Your task to perform on an android device: Open Chrome and go to the settings page Image 0: 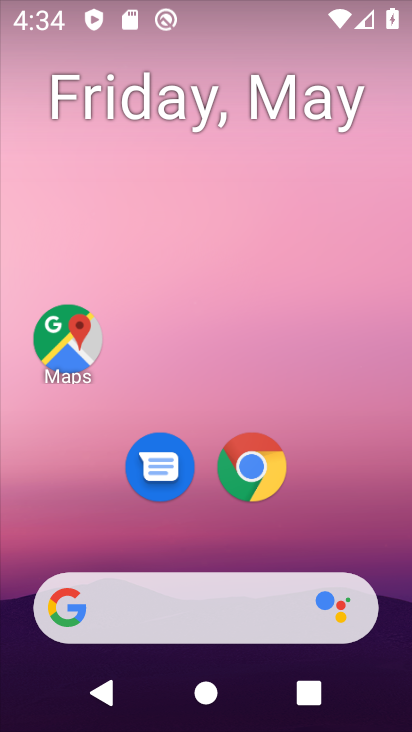
Step 0: click (242, 481)
Your task to perform on an android device: Open Chrome and go to the settings page Image 1: 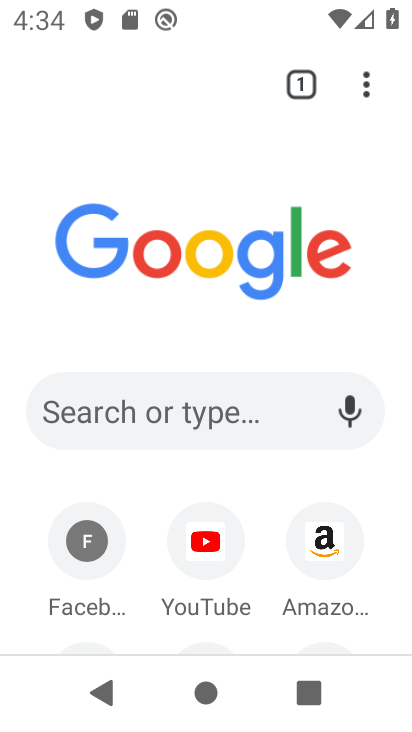
Step 1: click (362, 62)
Your task to perform on an android device: Open Chrome and go to the settings page Image 2: 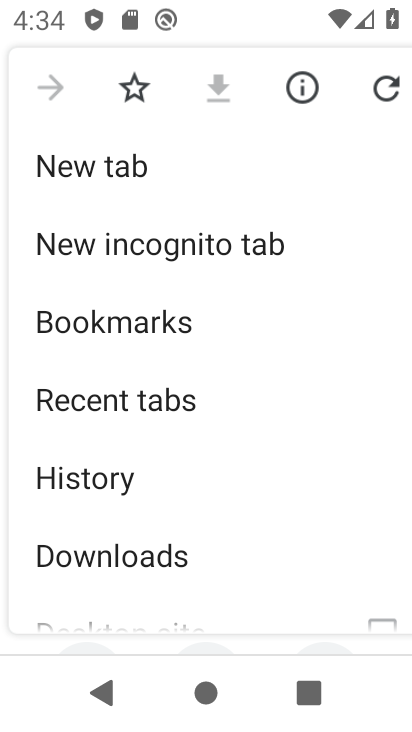
Step 2: drag from (239, 520) to (212, 173)
Your task to perform on an android device: Open Chrome and go to the settings page Image 3: 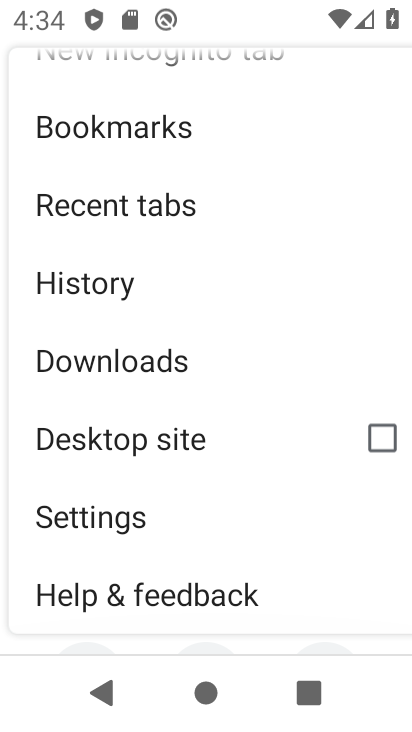
Step 3: click (173, 516)
Your task to perform on an android device: Open Chrome and go to the settings page Image 4: 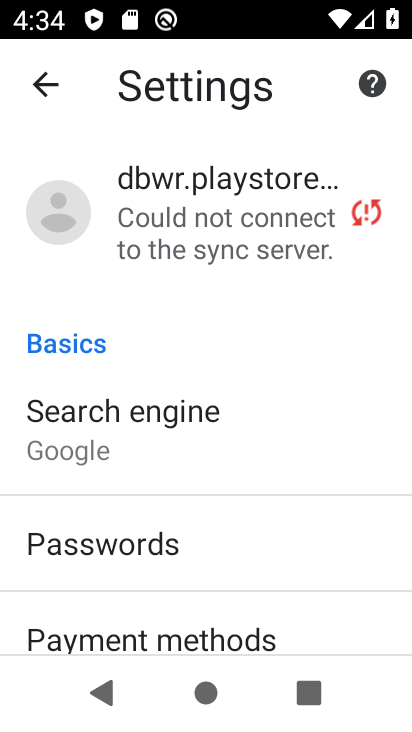
Step 4: task complete